Your task to perform on an android device: Go to calendar. Show me events next week Image 0: 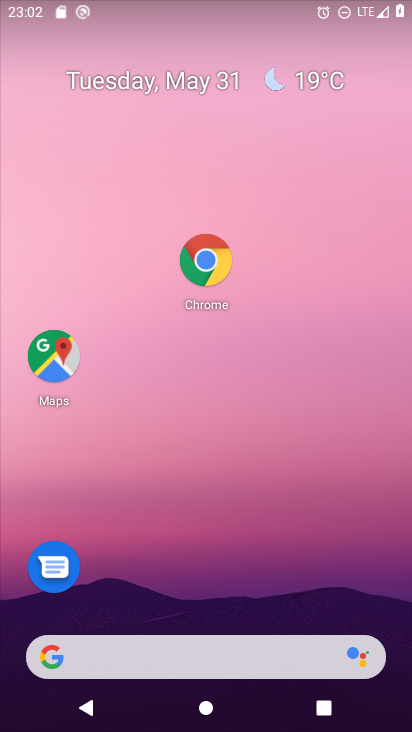
Step 0: drag from (283, 624) to (281, 297)
Your task to perform on an android device: Go to calendar. Show me events next week Image 1: 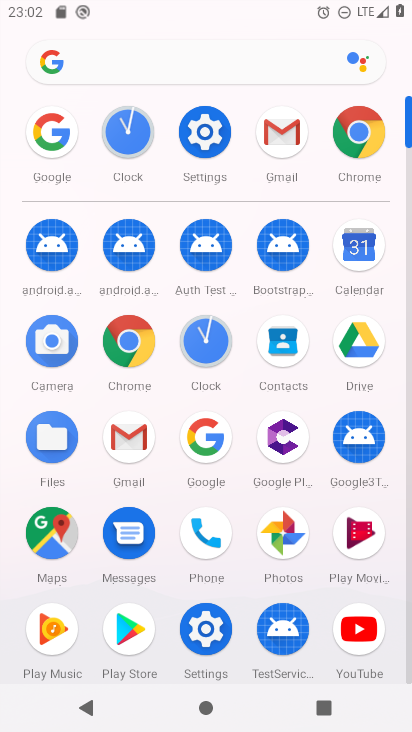
Step 1: click (357, 247)
Your task to perform on an android device: Go to calendar. Show me events next week Image 2: 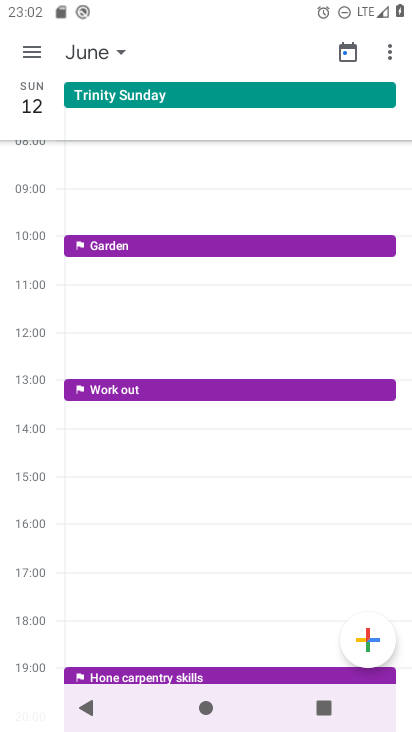
Step 2: click (95, 55)
Your task to perform on an android device: Go to calendar. Show me events next week Image 3: 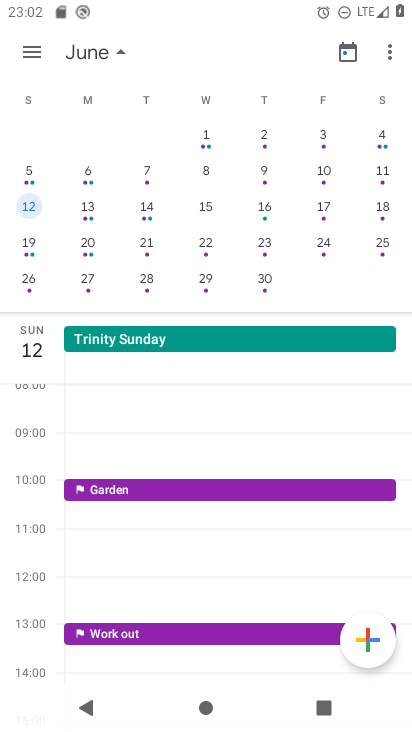
Step 3: click (38, 176)
Your task to perform on an android device: Go to calendar. Show me events next week Image 4: 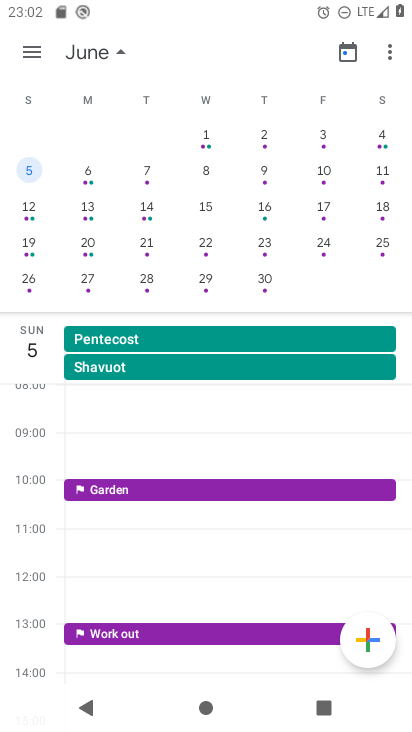
Step 4: task complete